Your task to perform on an android device: Go to location settings Image 0: 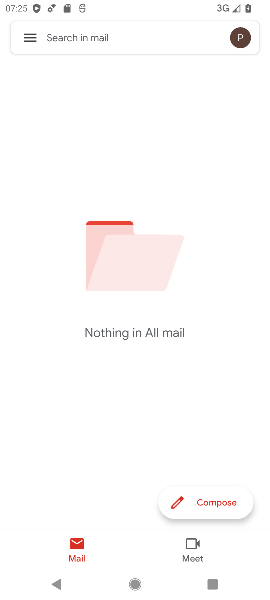
Step 0: press home button
Your task to perform on an android device: Go to location settings Image 1: 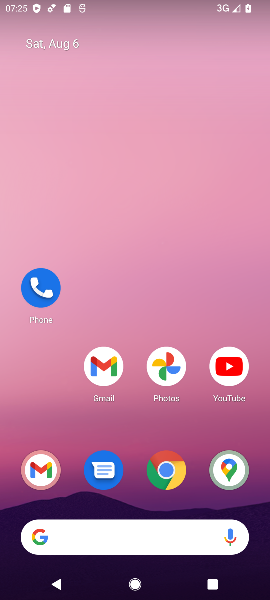
Step 1: drag from (135, 515) to (159, 139)
Your task to perform on an android device: Go to location settings Image 2: 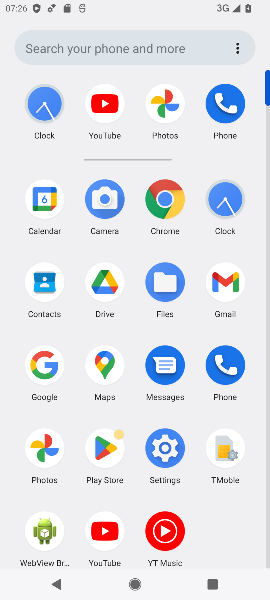
Step 2: click (165, 450)
Your task to perform on an android device: Go to location settings Image 3: 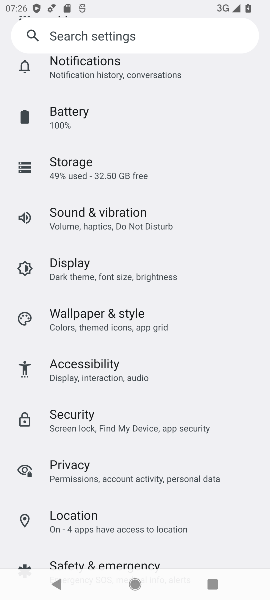
Step 3: drag from (118, 376) to (131, 299)
Your task to perform on an android device: Go to location settings Image 4: 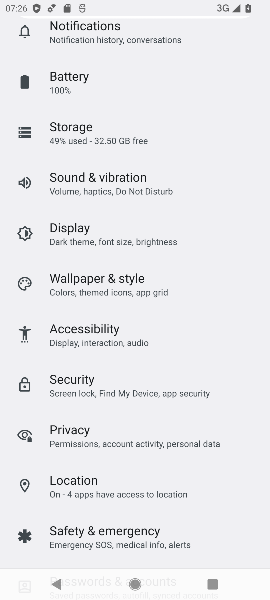
Step 4: click (94, 486)
Your task to perform on an android device: Go to location settings Image 5: 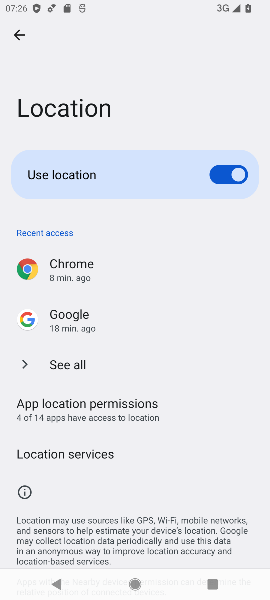
Step 5: task complete